Your task to perform on an android device: set default search engine in the chrome app Image 0: 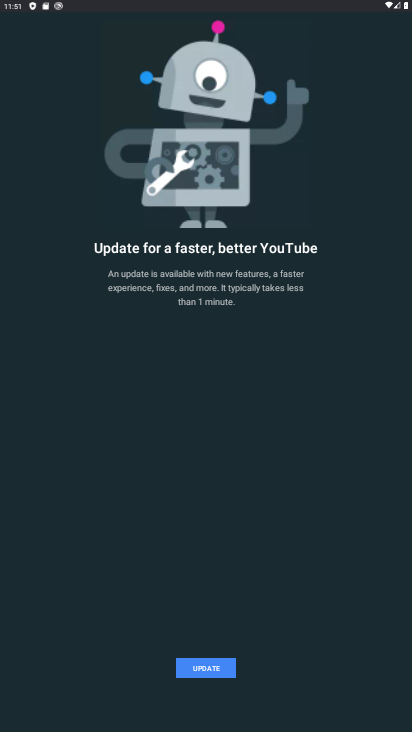
Step 0: press home button
Your task to perform on an android device: set default search engine in the chrome app Image 1: 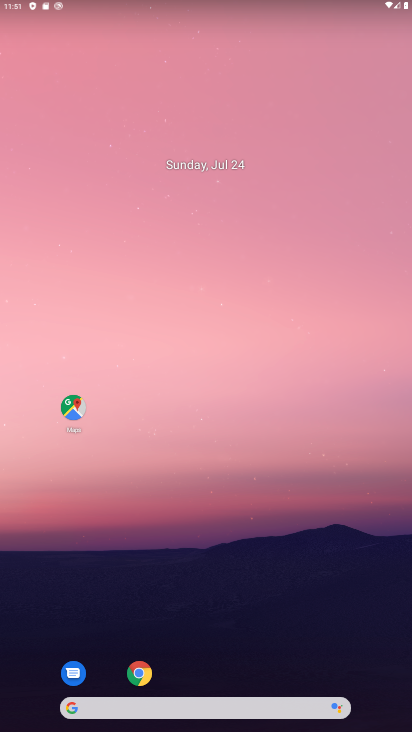
Step 1: click (140, 673)
Your task to perform on an android device: set default search engine in the chrome app Image 2: 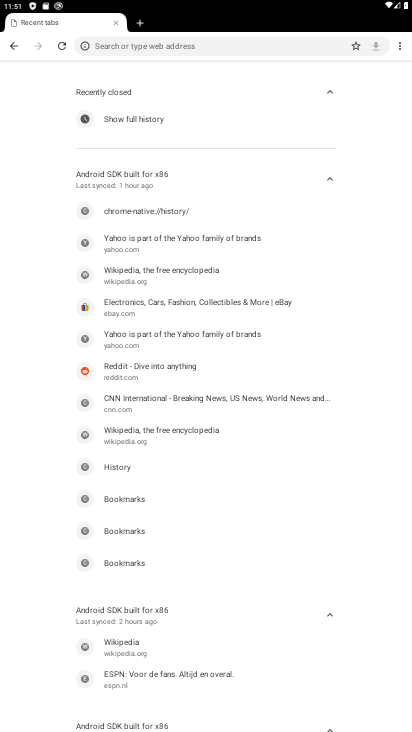
Step 2: click (402, 46)
Your task to perform on an android device: set default search engine in the chrome app Image 3: 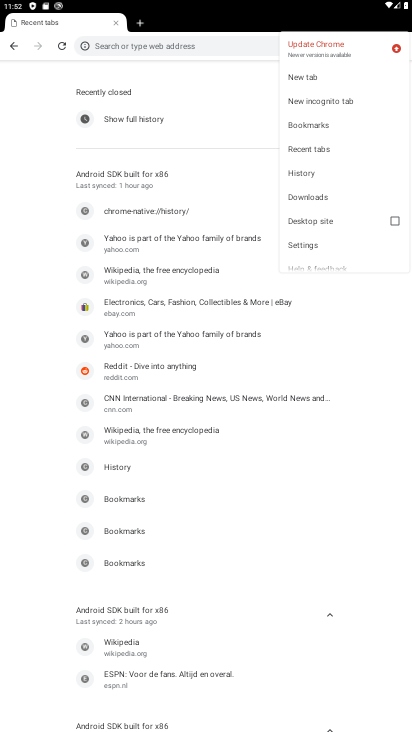
Step 3: click (310, 244)
Your task to perform on an android device: set default search engine in the chrome app Image 4: 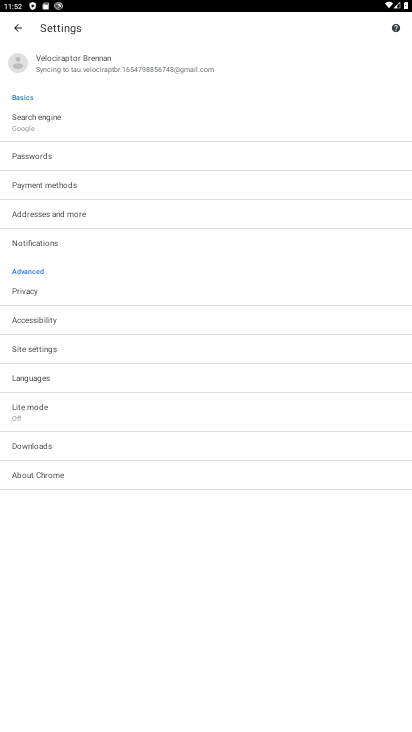
Step 4: click (47, 123)
Your task to perform on an android device: set default search engine in the chrome app Image 5: 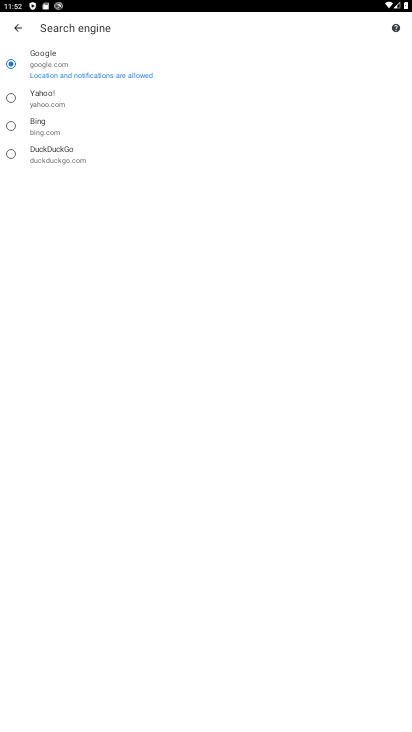
Step 5: click (11, 61)
Your task to perform on an android device: set default search engine in the chrome app Image 6: 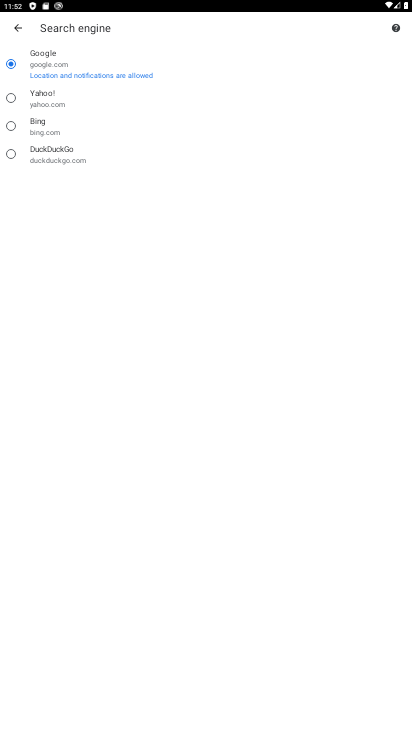
Step 6: task complete